Your task to perform on an android device: turn on showing notifications on the lock screen Image 0: 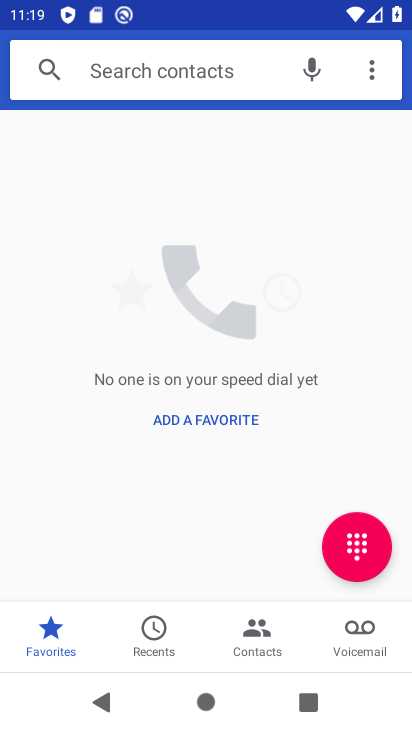
Step 0: press back button
Your task to perform on an android device: turn on showing notifications on the lock screen Image 1: 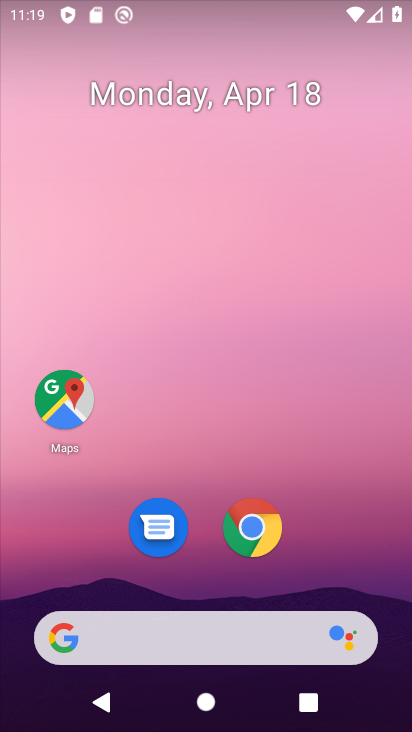
Step 1: drag from (351, 573) to (373, 24)
Your task to perform on an android device: turn on showing notifications on the lock screen Image 2: 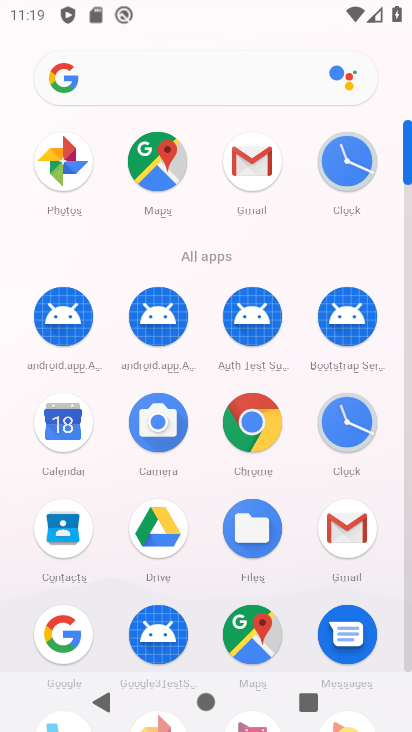
Step 2: drag from (208, 576) to (223, 408)
Your task to perform on an android device: turn on showing notifications on the lock screen Image 3: 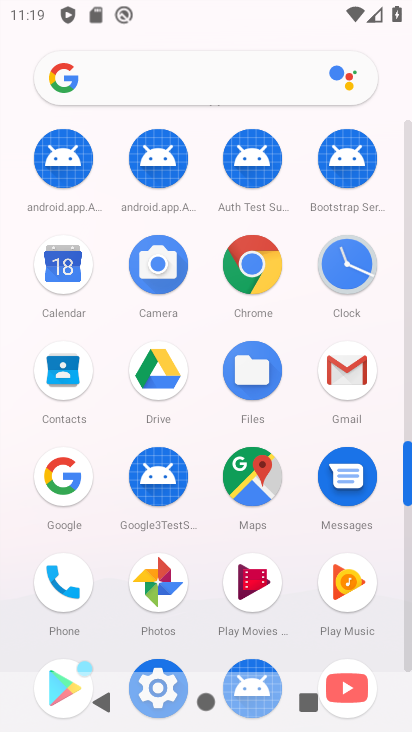
Step 3: drag from (183, 647) to (181, 513)
Your task to perform on an android device: turn on showing notifications on the lock screen Image 4: 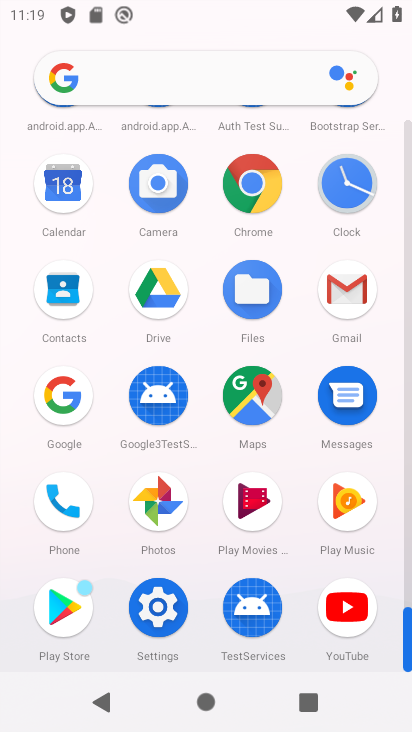
Step 4: click (153, 597)
Your task to perform on an android device: turn on showing notifications on the lock screen Image 5: 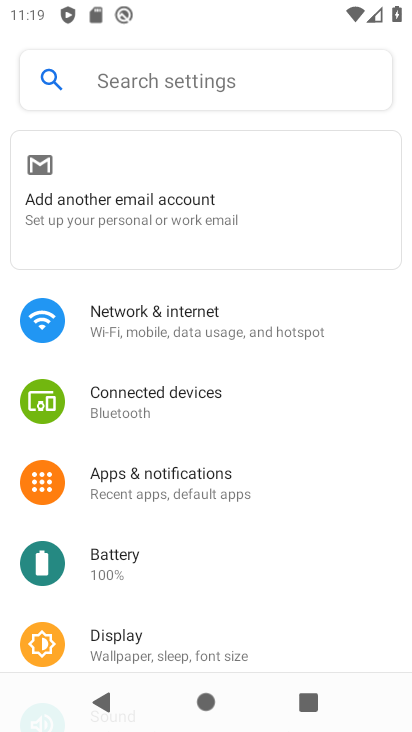
Step 5: drag from (161, 633) to (164, 557)
Your task to perform on an android device: turn on showing notifications on the lock screen Image 6: 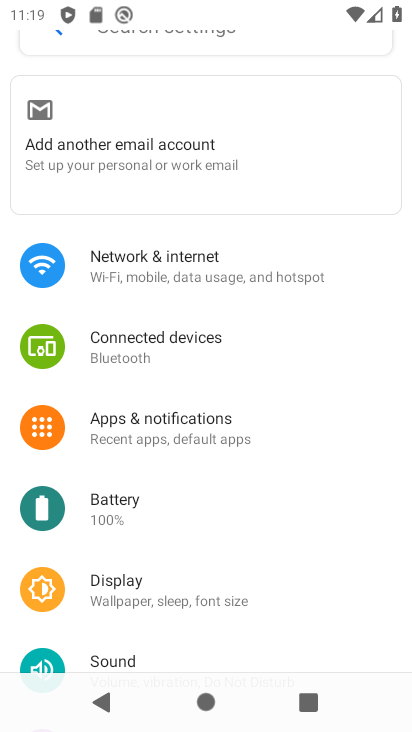
Step 6: click (193, 414)
Your task to perform on an android device: turn on showing notifications on the lock screen Image 7: 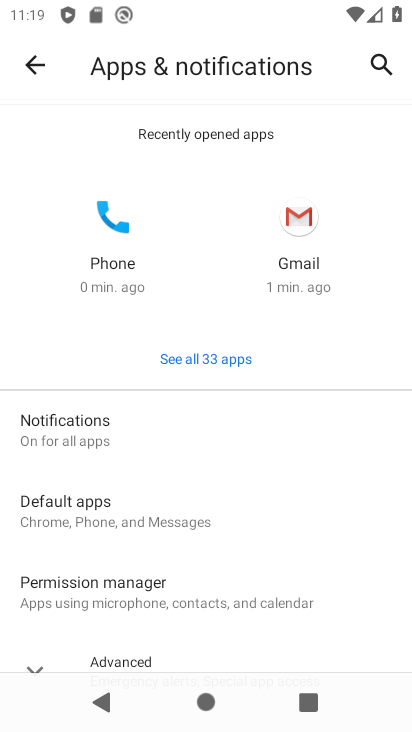
Step 7: click (163, 421)
Your task to perform on an android device: turn on showing notifications on the lock screen Image 8: 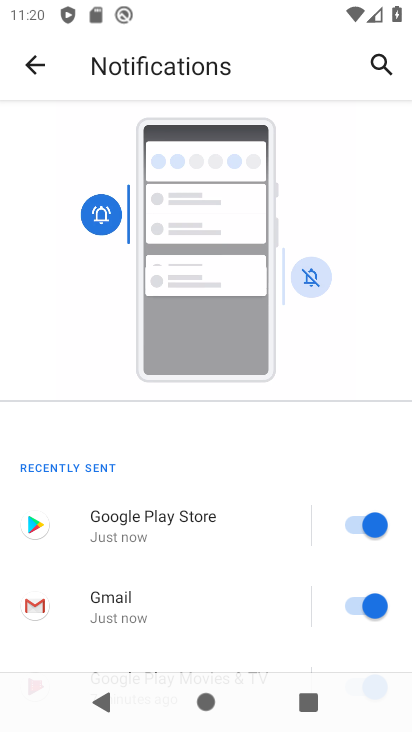
Step 8: drag from (139, 563) to (152, 400)
Your task to perform on an android device: turn on showing notifications on the lock screen Image 9: 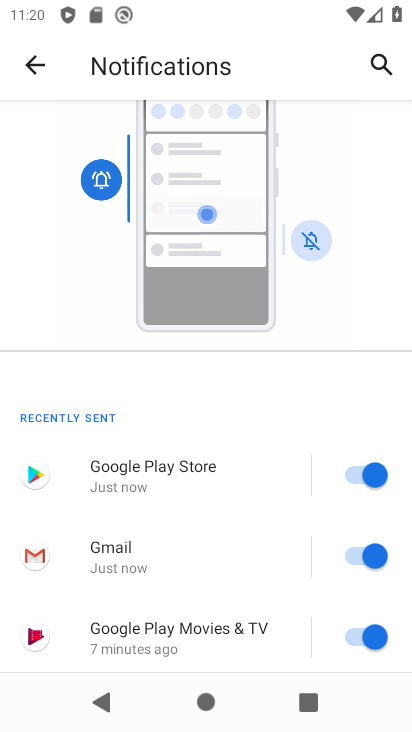
Step 9: drag from (177, 475) to (191, 422)
Your task to perform on an android device: turn on showing notifications on the lock screen Image 10: 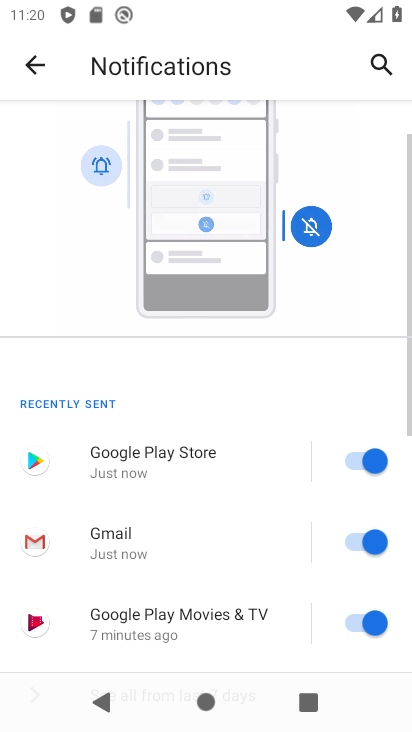
Step 10: drag from (187, 551) to (243, 429)
Your task to perform on an android device: turn on showing notifications on the lock screen Image 11: 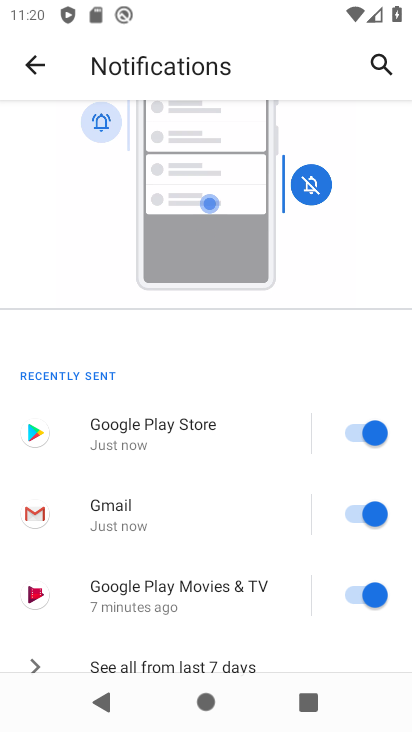
Step 11: drag from (204, 651) to (250, 409)
Your task to perform on an android device: turn on showing notifications on the lock screen Image 12: 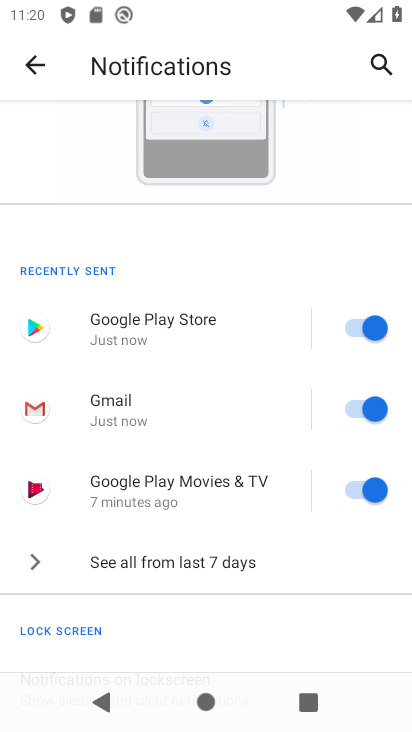
Step 12: drag from (190, 608) to (200, 343)
Your task to perform on an android device: turn on showing notifications on the lock screen Image 13: 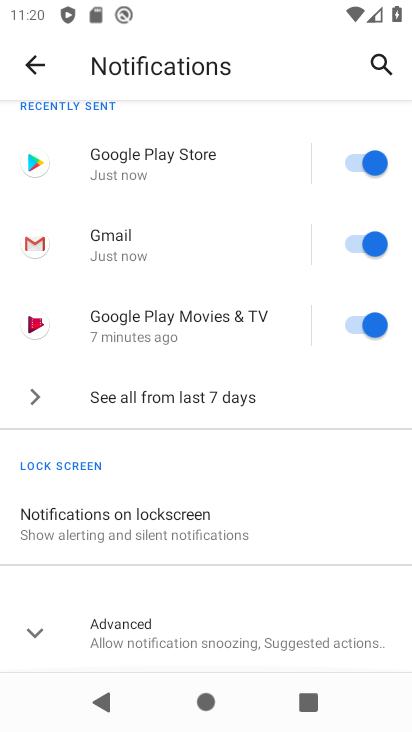
Step 13: click (198, 533)
Your task to perform on an android device: turn on showing notifications on the lock screen Image 14: 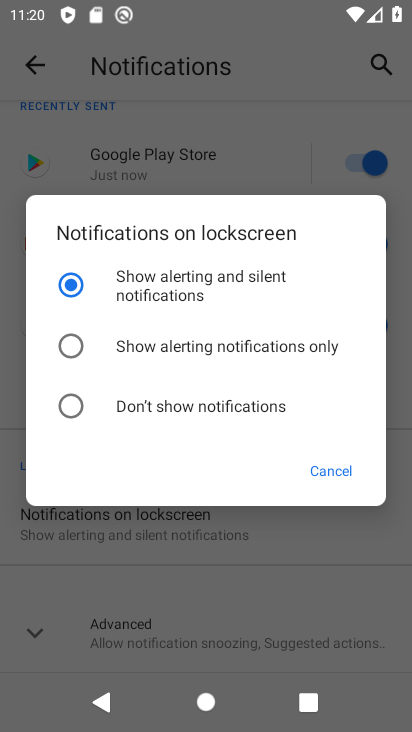
Step 14: click (192, 288)
Your task to perform on an android device: turn on showing notifications on the lock screen Image 15: 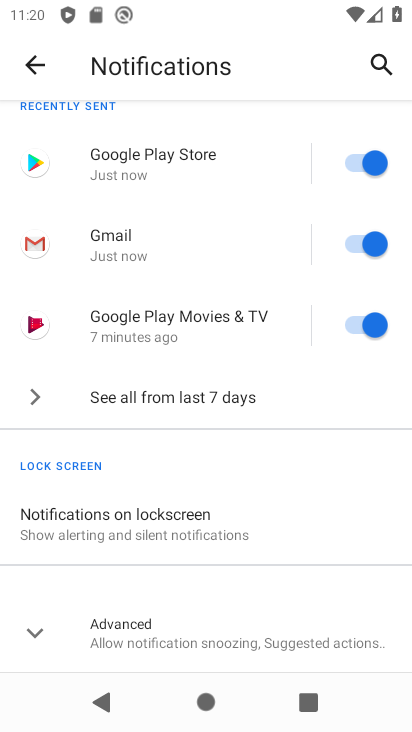
Step 15: task complete